Your task to perform on an android device: Play the last video I watched on Youtube Image 0: 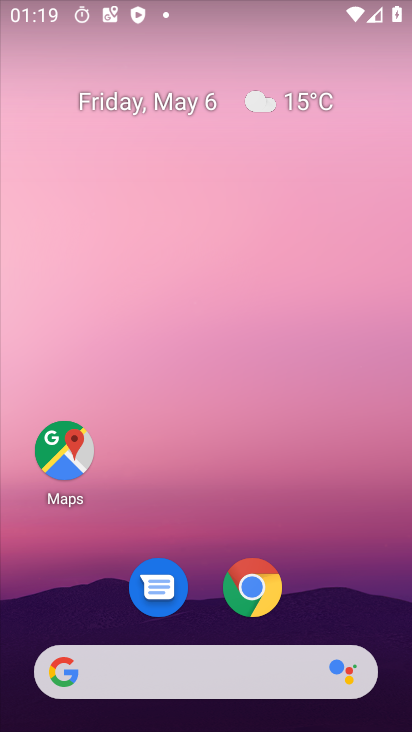
Step 0: drag from (389, 601) to (382, 295)
Your task to perform on an android device: Play the last video I watched on Youtube Image 1: 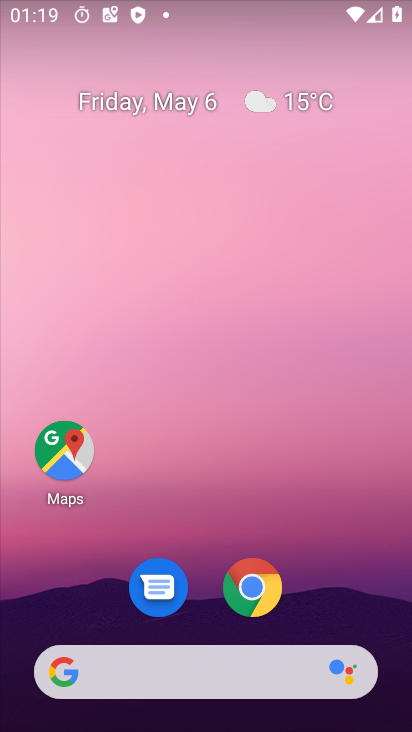
Step 1: drag from (389, 658) to (359, 49)
Your task to perform on an android device: Play the last video I watched on Youtube Image 2: 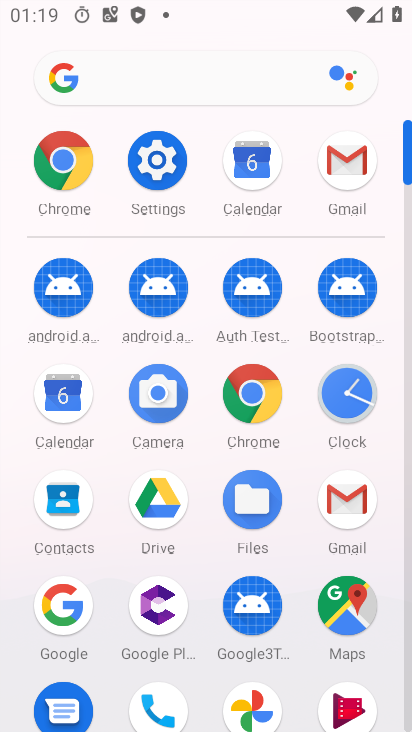
Step 2: click (406, 154)
Your task to perform on an android device: Play the last video I watched on Youtube Image 3: 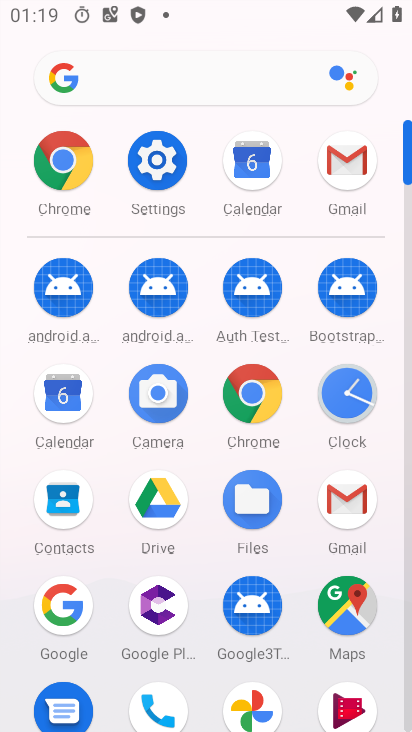
Step 3: drag from (409, 172) to (409, 37)
Your task to perform on an android device: Play the last video I watched on Youtube Image 4: 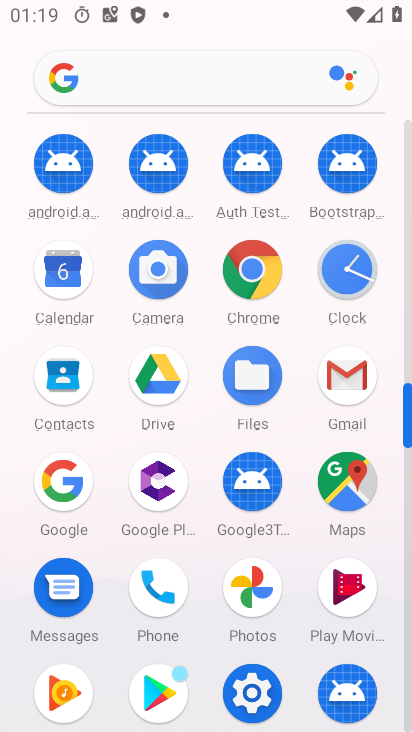
Step 4: drag from (408, 390) to (392, 252)
Your task to perform on an android device: Play the last video I watched on Youtube Image 5: 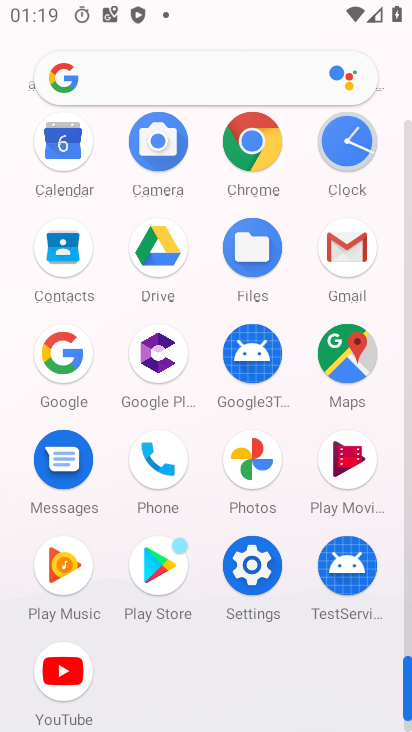
Step 5: click (65, 663)
Your task to perform on an android device: Play the last video I watched on Youtube Image 6: 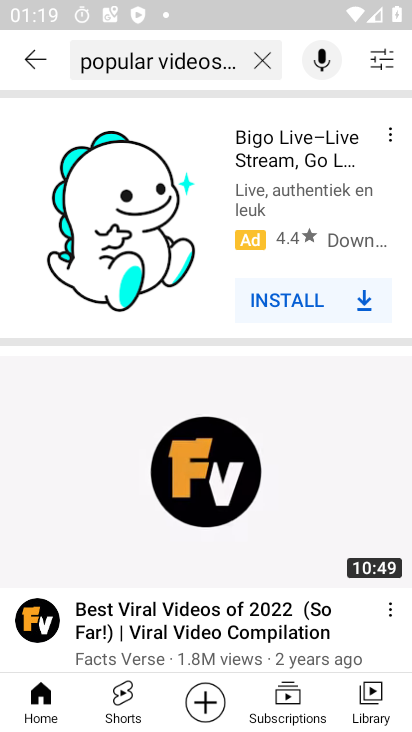
Step 6: click (384, 711)
Your task to perform on an android device: Play the last video I watched on Youtube Image 7: 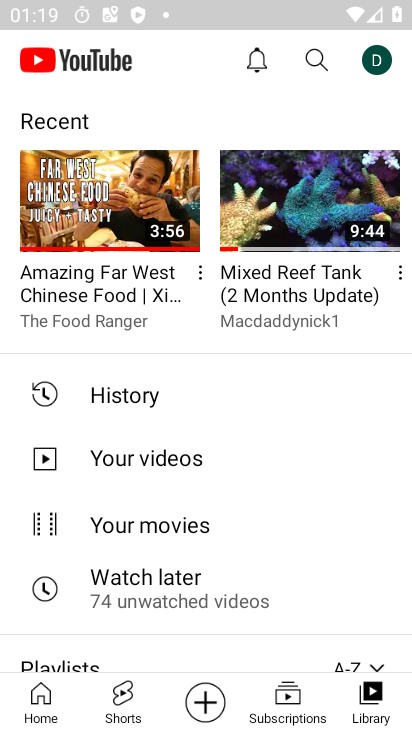
Step 7: click (83, 201)
Your task to perform on an android device: Play the last video I watched on Youtube Image 8: 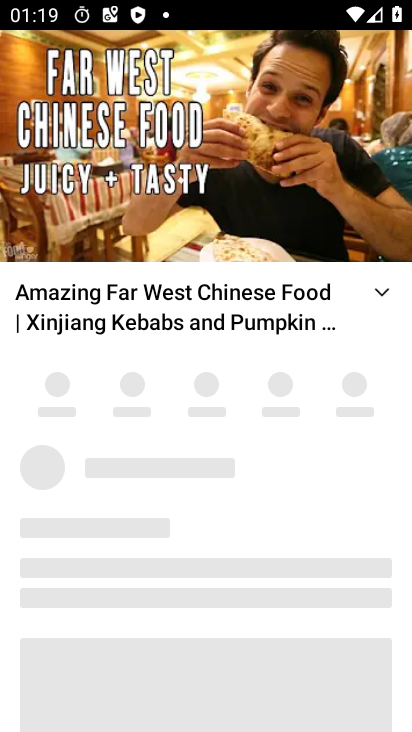
Step 8: task complete